Your task to perform on an android device: Go to wifi settings Image 0: 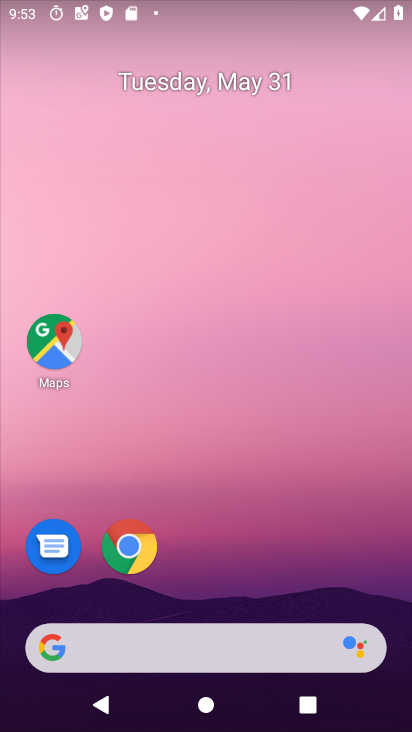
Step 0: drag from (180, 582) to (278, 62)
Your task to perform on an android device: Go to wifi settings Image 1: 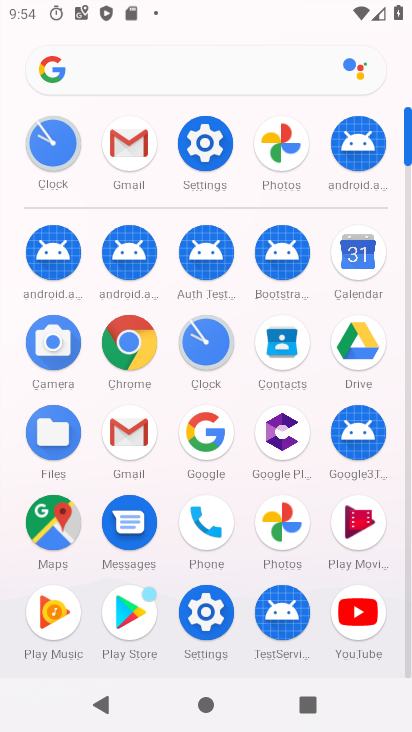
Step 1: click (210, 161)
Your task to perform on an android device: Go to wifi settings Image 2: 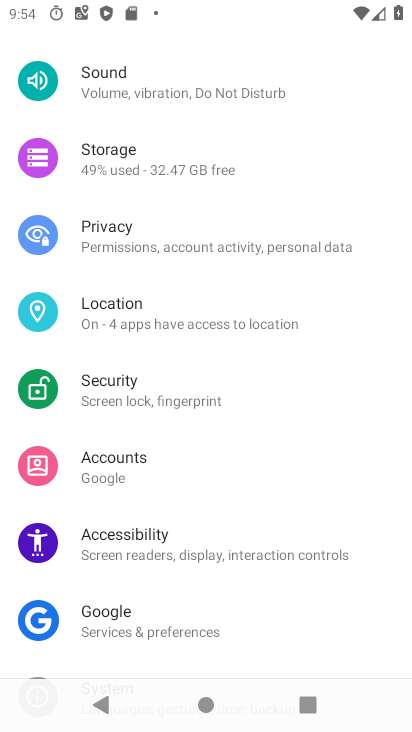
Step 2: click (134, 114)
Your task to perform on an android device: Go to wifi settings Image 3: 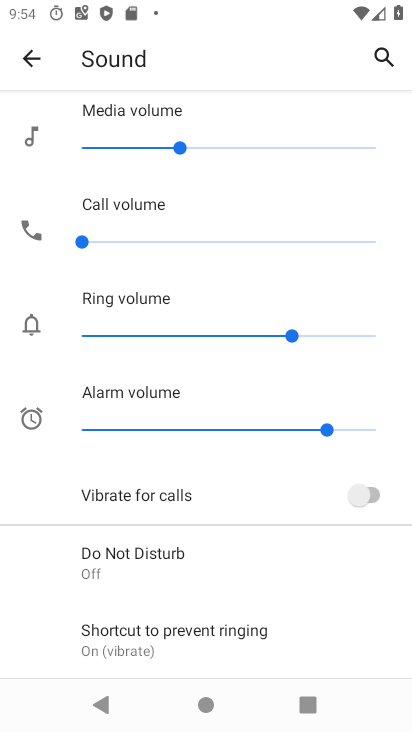
Step 3: click (29, 57)
Your task to perform on an android device: Go to wifi settings Image 4: 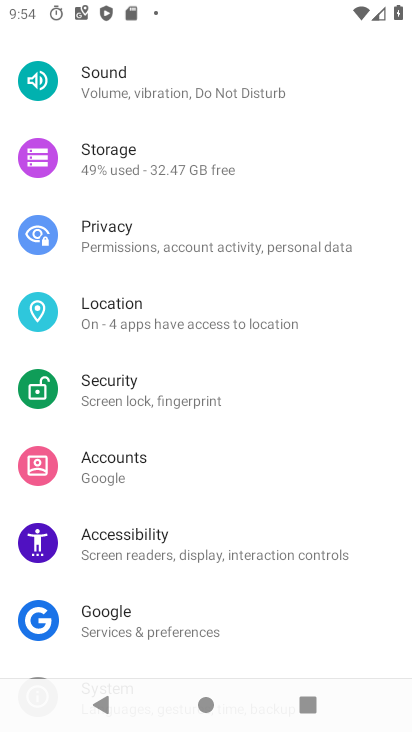
Step 4: drag from (149, 139) to (147, 578)
Your task to perform on an android device: Go to wifi settings Image 5: 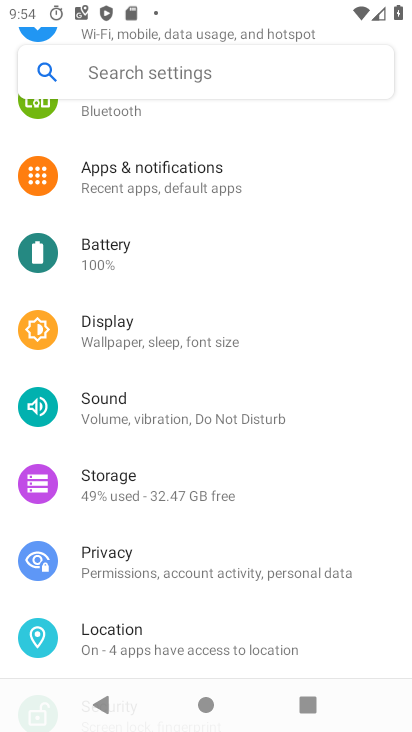
Step 5: drag from (129, 116) to (213, 713)
Your task to perform on an android device: Go to wifi settings Image 6: 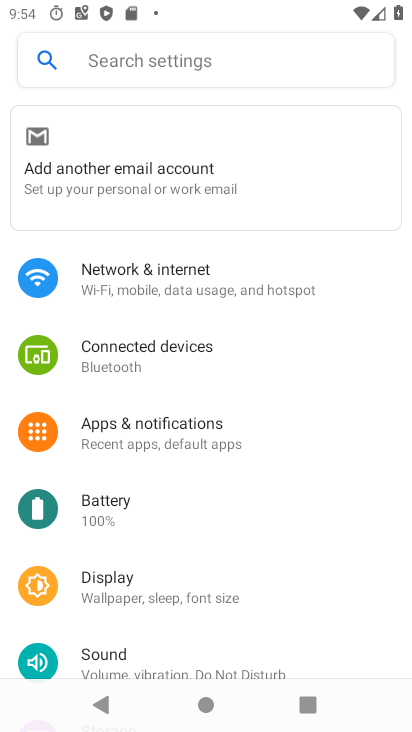
Step 6: click (192, 287)
Your task to perform on an android device: Go to wifi settings Image 7: 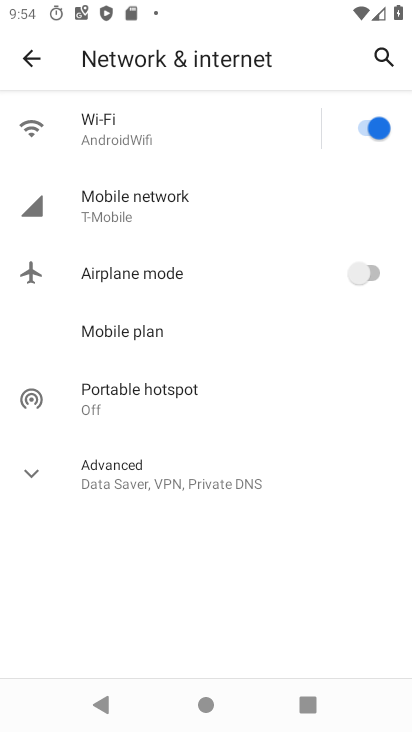
Step 7: click (157, 123)
Your task to perform on an android device: Go to wifi settings Image 8: 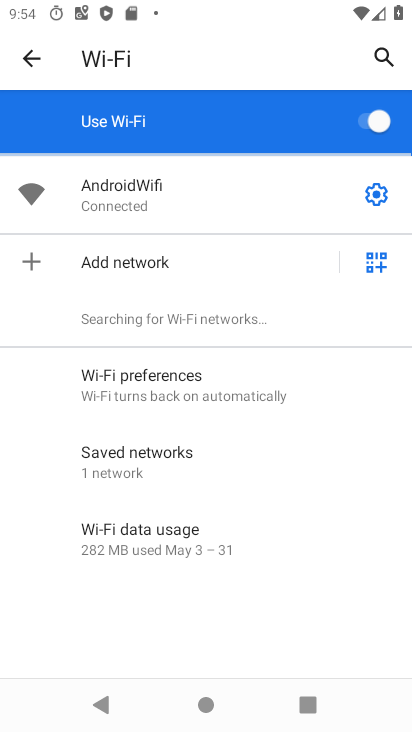
Step 8: click (157, 123)
Your task to perform on an android device: Go to wifi settings Image 9: 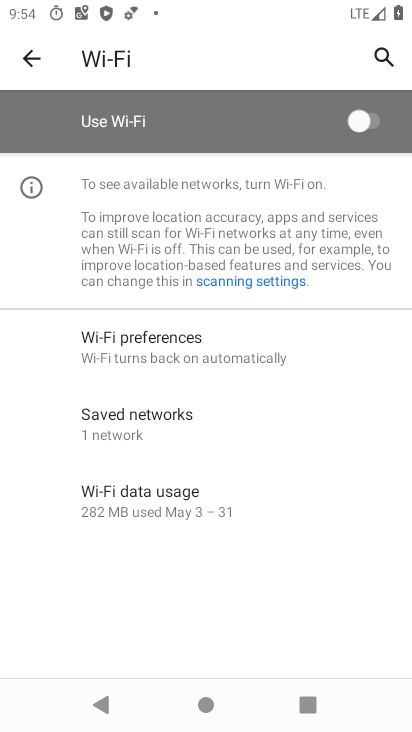
Step 9: task complete